Your task to perform on an android device: change keyboard looks Image 0: 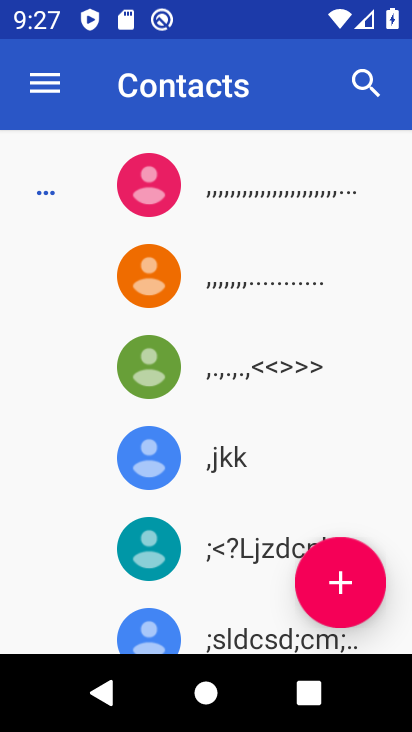
Step 0: press home button
Your task to perform on an android device: change keyboard looks Image 1: 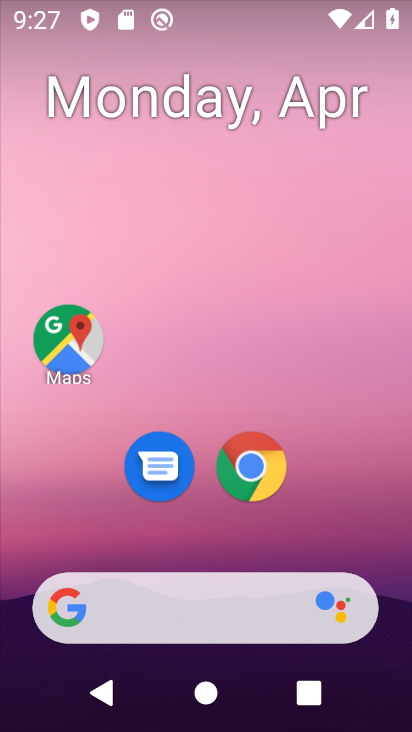
Step 1: drag from (203, 524) to (300, 61)
Your task to perform on an android device: change keyboard looks Image 2: 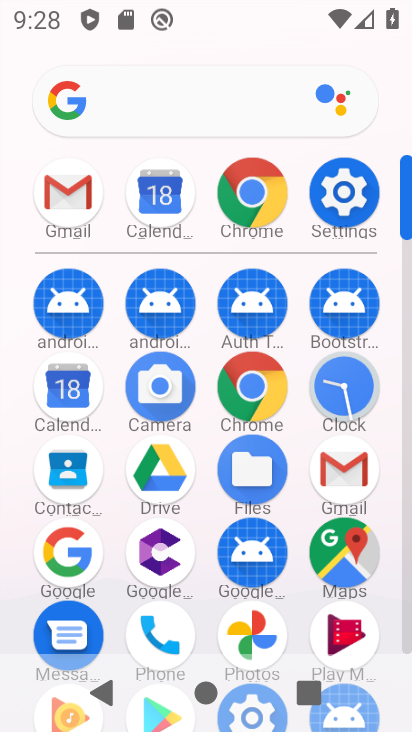
Step 2: click (348, 202)
Your task to perform on an android device: change keyboard looks Image 3: 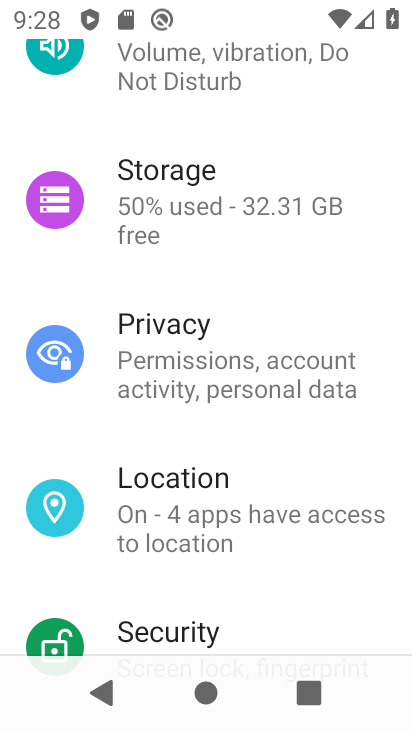
Step 3: drag from (256, 557) to (267, 432)
Your task to perform on an android device: change keyboard looks Image 4: 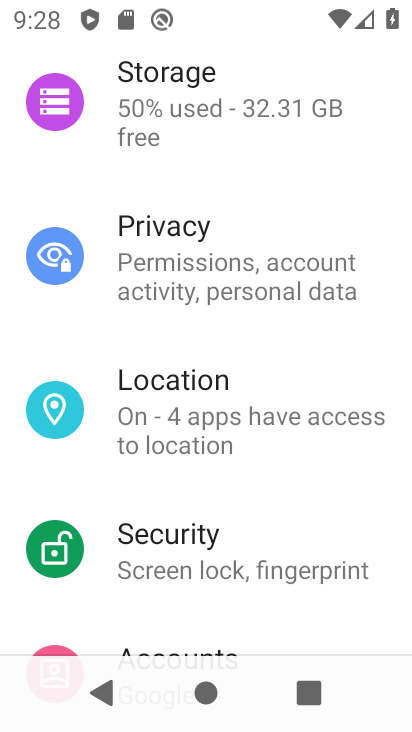
Step 4: drag from (254, 498) to (267, 383)
Your task to perform on an android device: change keyboard looks Image 5: 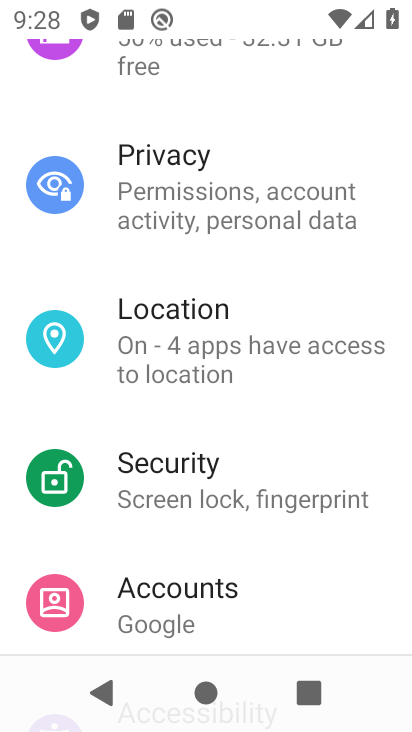
Step 5: drag from (252, 566) to (264, 447)
Your task to perform on an android device: change keyboard looks Image 6: 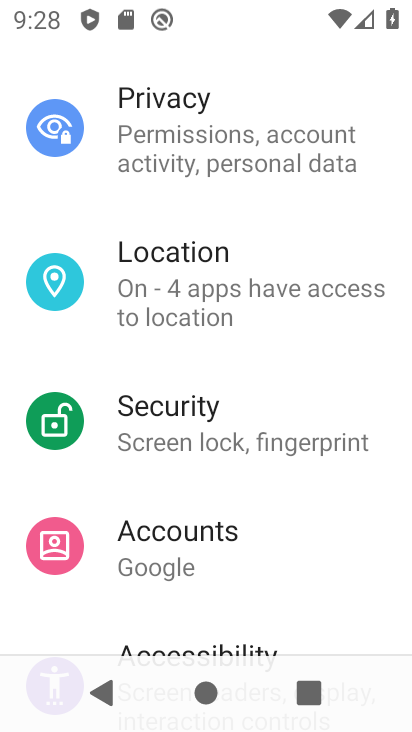
Step 6: drag from (233, 545) to (264, 393)
Your task to perform on an android device: change keyboard looks Image 7: 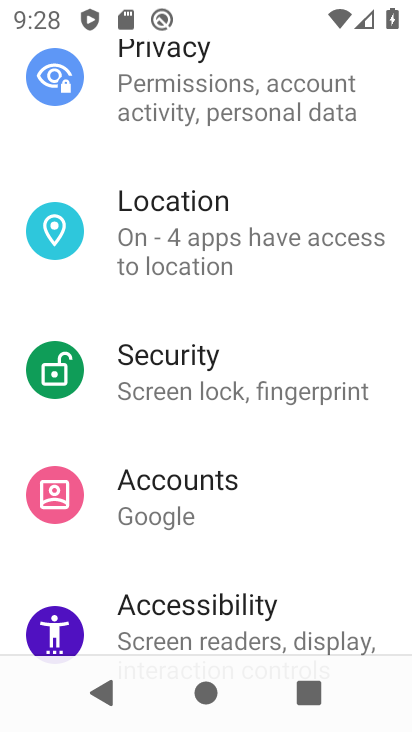
Step 7: click (249, 400)
Your task to perform on an android device: change keyboard looks Image 8: 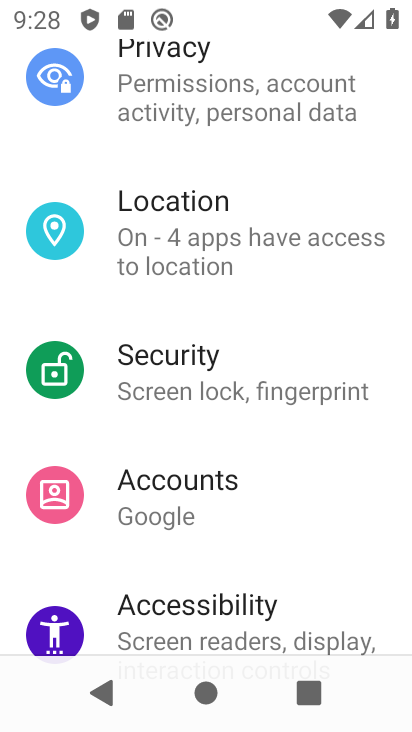
Step 8: drag from (223, 573) to (253, 464)
Your task to perform on an android device: change keyboard looks Image 9: 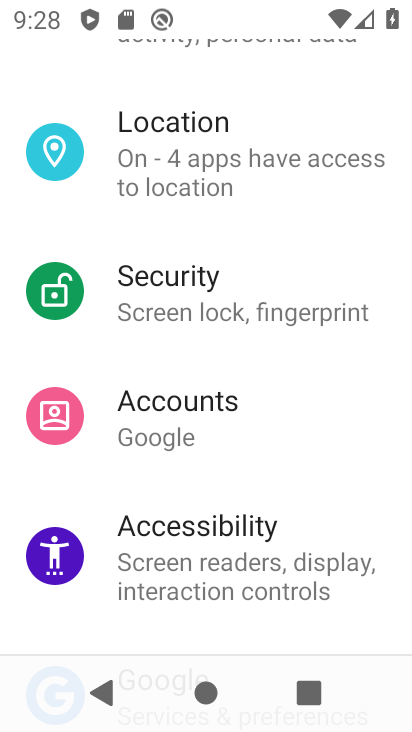
Step 9: drag from (255, 608) to (320, 449)
Your task to perform on an android device: change keyboard looks Image 10: 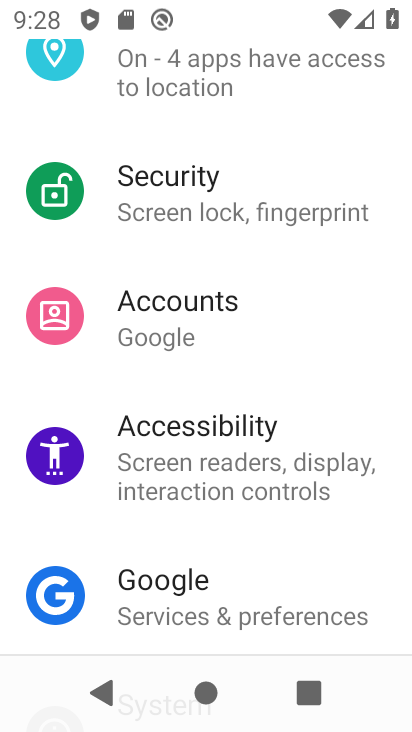
Step 10: drag from (260, 552) to (306, 402)
Your task to perform on an android device: change keyboard looks Image 11: 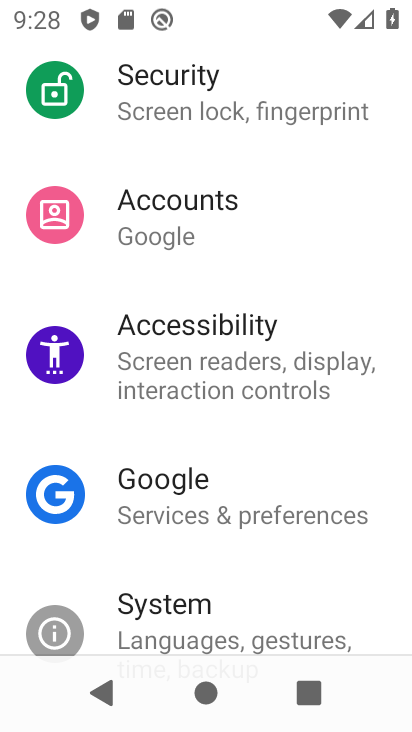
Step 11: drag from (256, 600) to (275, 468)
Your task to perform on an android device: change keyboard looks Image 12: 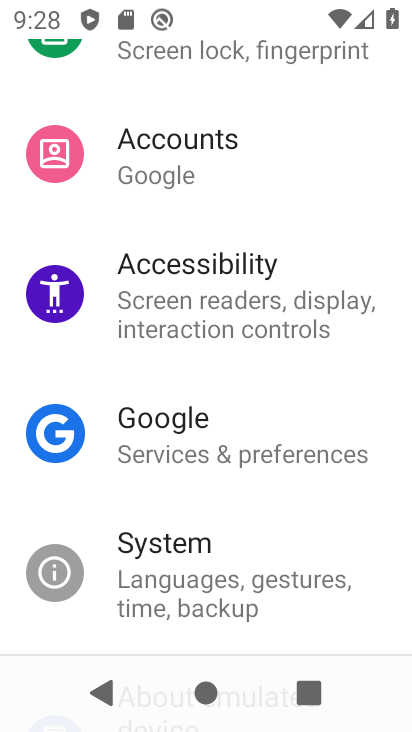
Step 12: drag from (245, 566) to (294, 401)
Your task to perform on an android device: change keyboard looks Image 13: 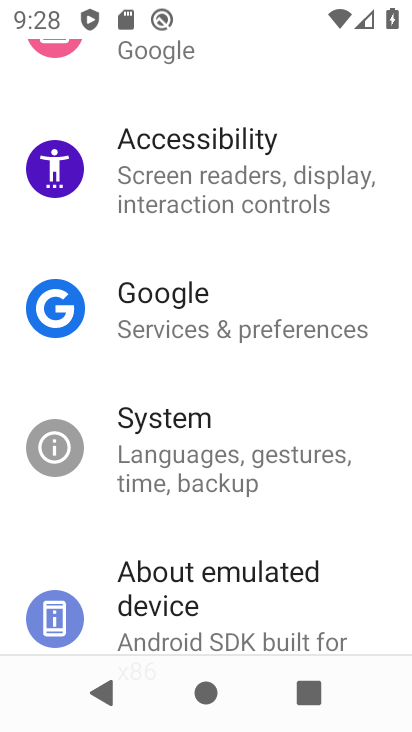
Step 13: click (189, 411)
Your task to perform on an android device: change keyboard looks Image 14: 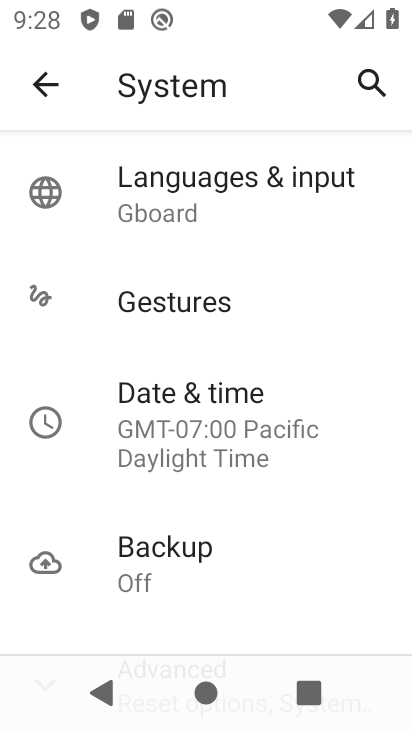
Step 14: click (146, 210)
Your task to perform on an android device: change keyboard looks Image 15: 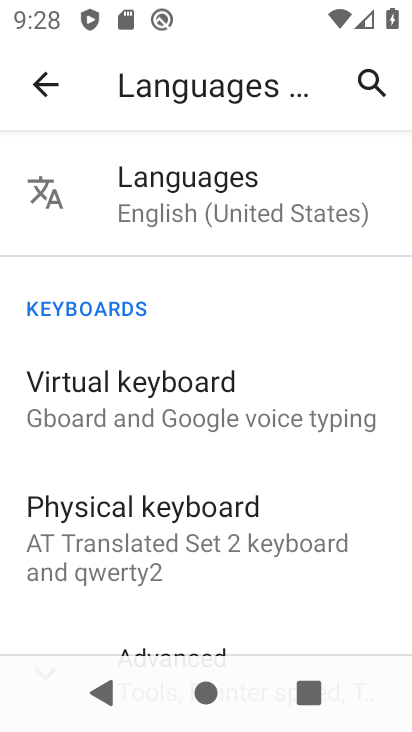
Step 15: drag from (130, 468) to (225, 346)
Your task to perform on an android device: change keyboard looks Image 16: 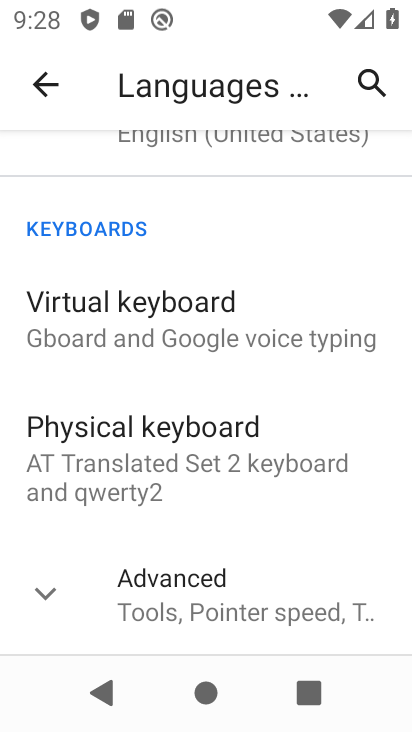
Step 16: click (208, 323)
Your task to perform on an android device: change keyboard looks Image 17: 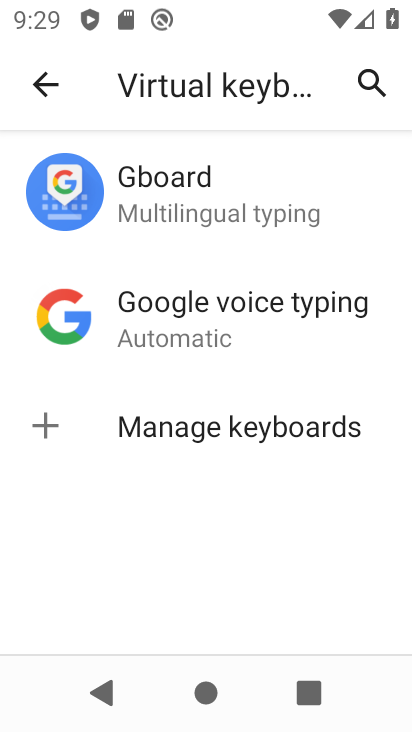
Step 17: click (187, 216)
Your task to perform on an android device: change keyboard looks Image 18: 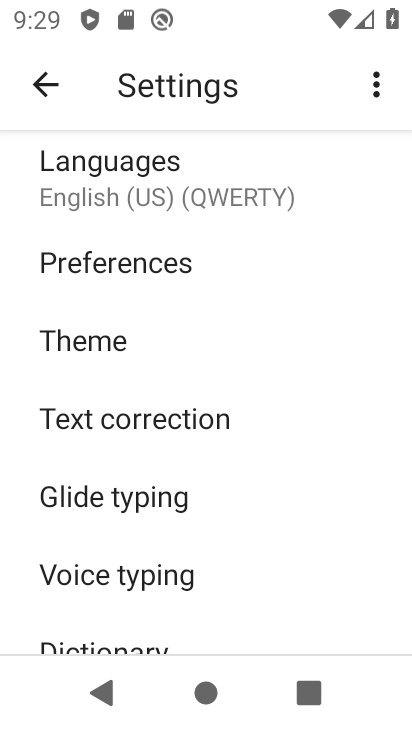
Step 18: click (108, 344)
Your task to perform on an android device: change keyboard looks Image 19: 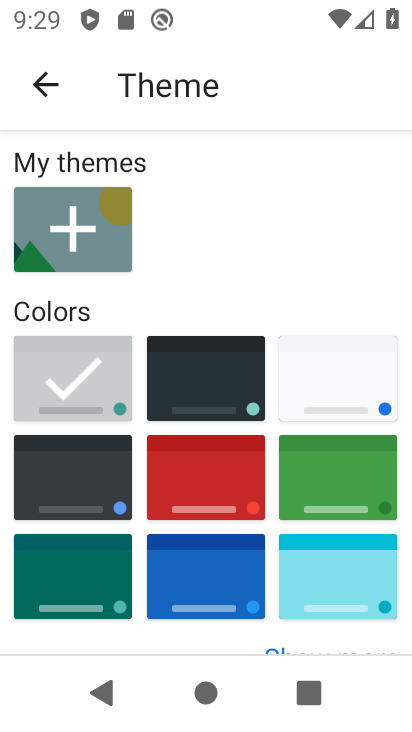
Step 19: click (208, 378)
Your task to perform on an android device: change keyboard looks Image 20: 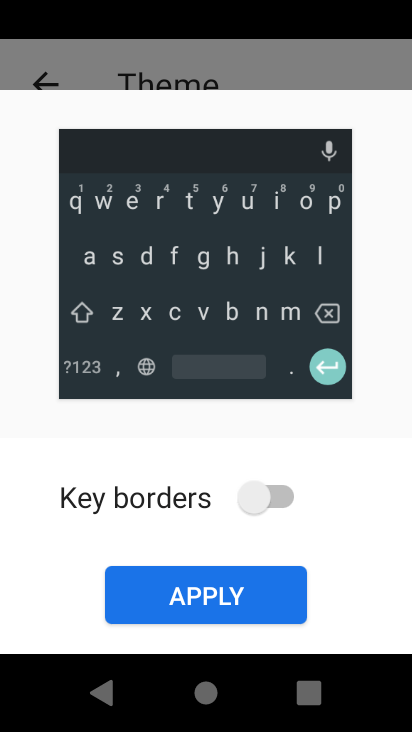
Step 20: click (278, 502)
Your task to perform on an android device: change keyboard looks Image 21: 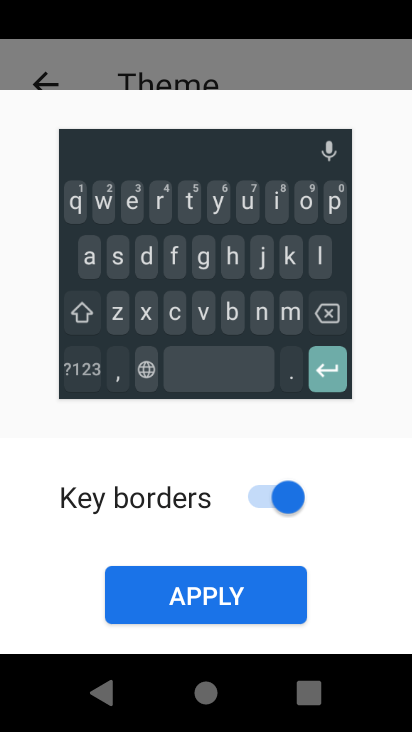
Step 21: click (206, 584)
Your task to perform on an android device: change keyboard looks Image 22: 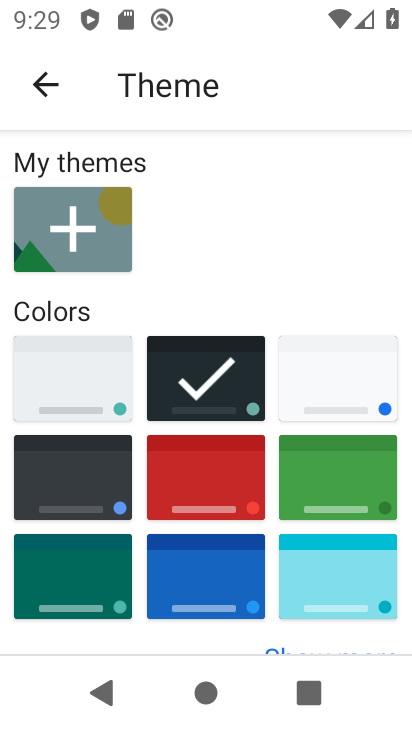
Step 22: task complete